Your task to perform on an android device: turn off airplane mode Image 0: 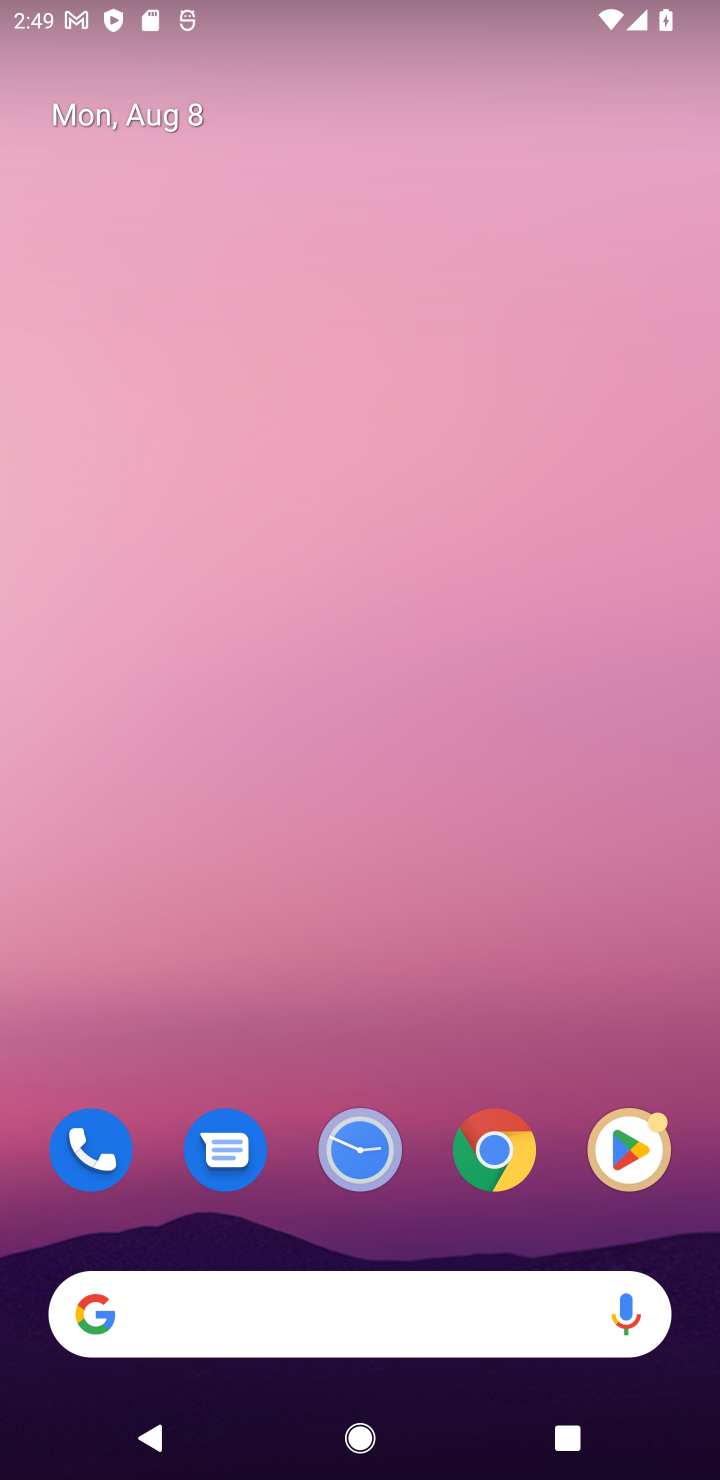
Step 0: drag from (389, 1031) to (291, 427)
Your task to perform on an android device: turn off airplane mode Image 1: 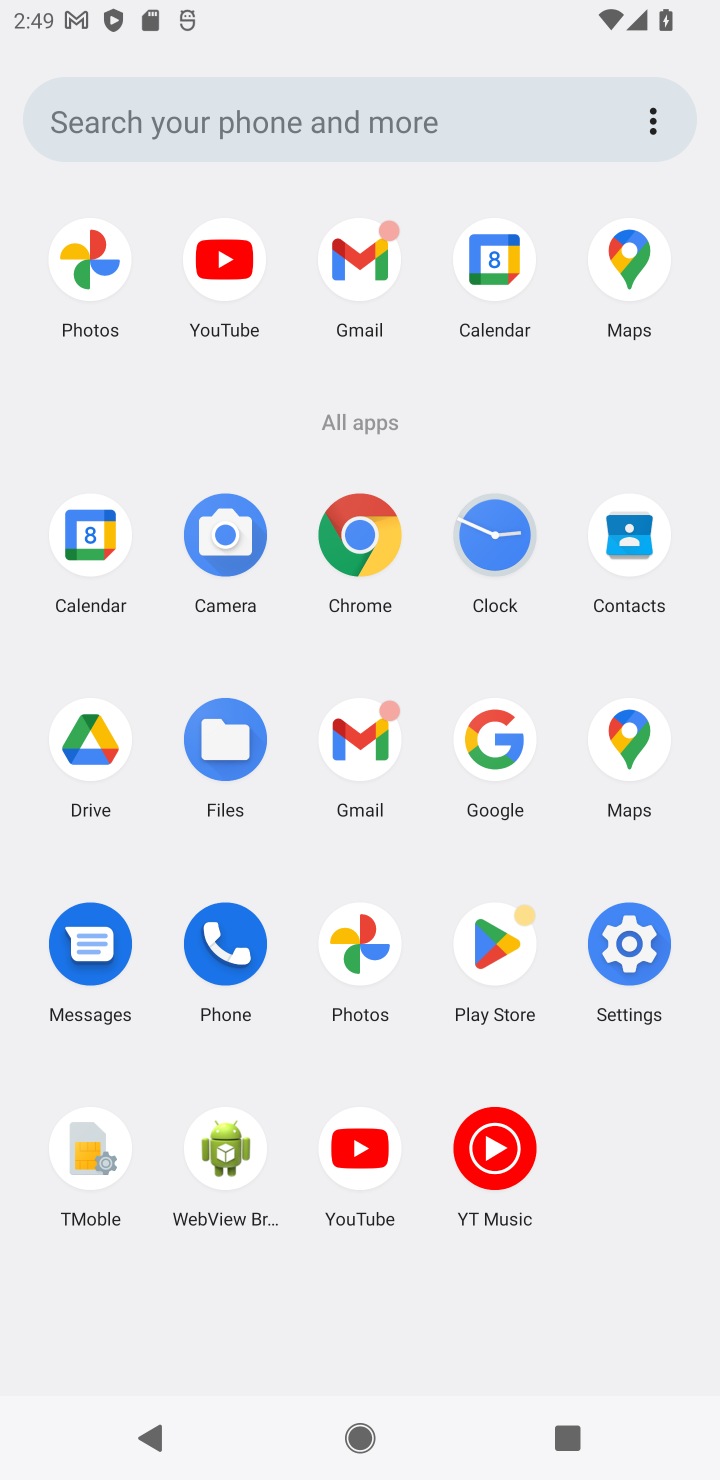
Step 1: click (619, 955)
Your task to perform on an android device: turn off airplane mode Image 2: 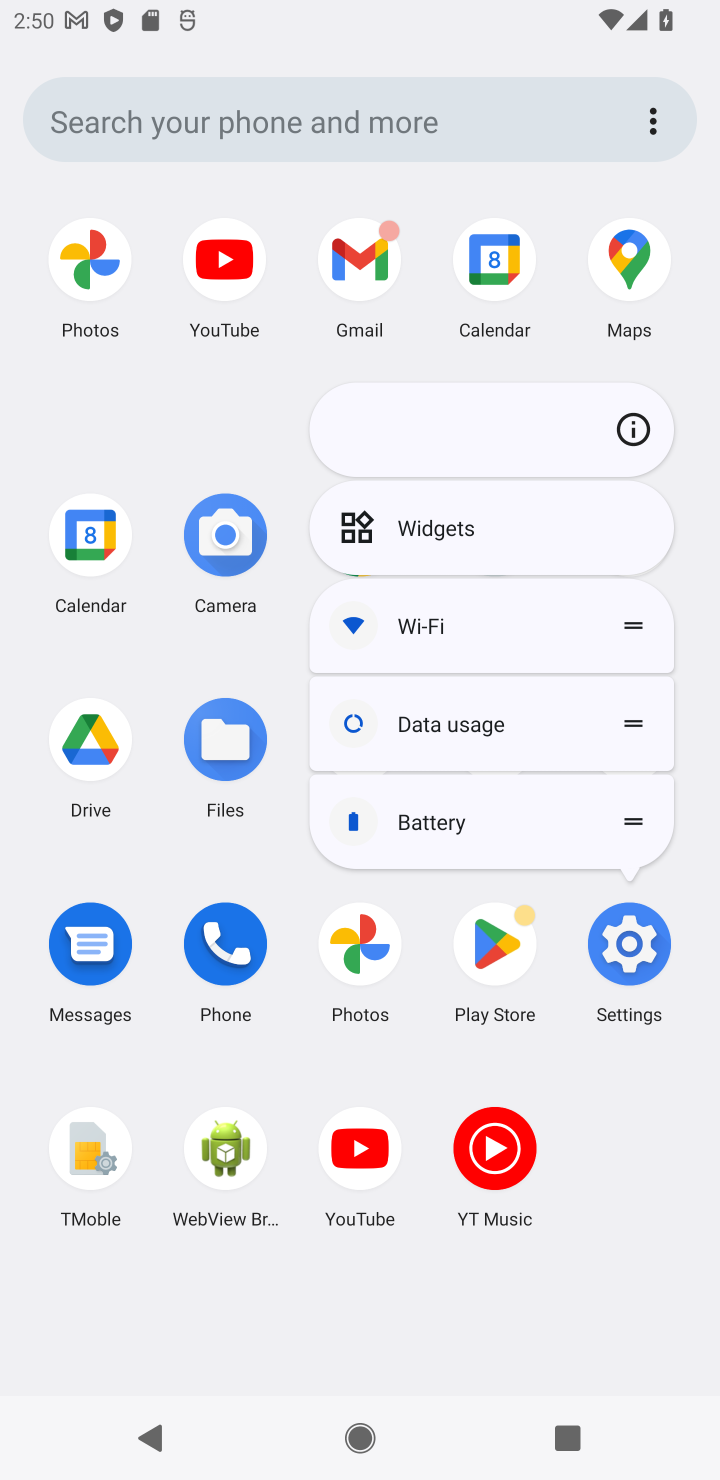
Step 2: click (624, 968)
Your task to perform on an android device: turn off airplane mode Image 3: 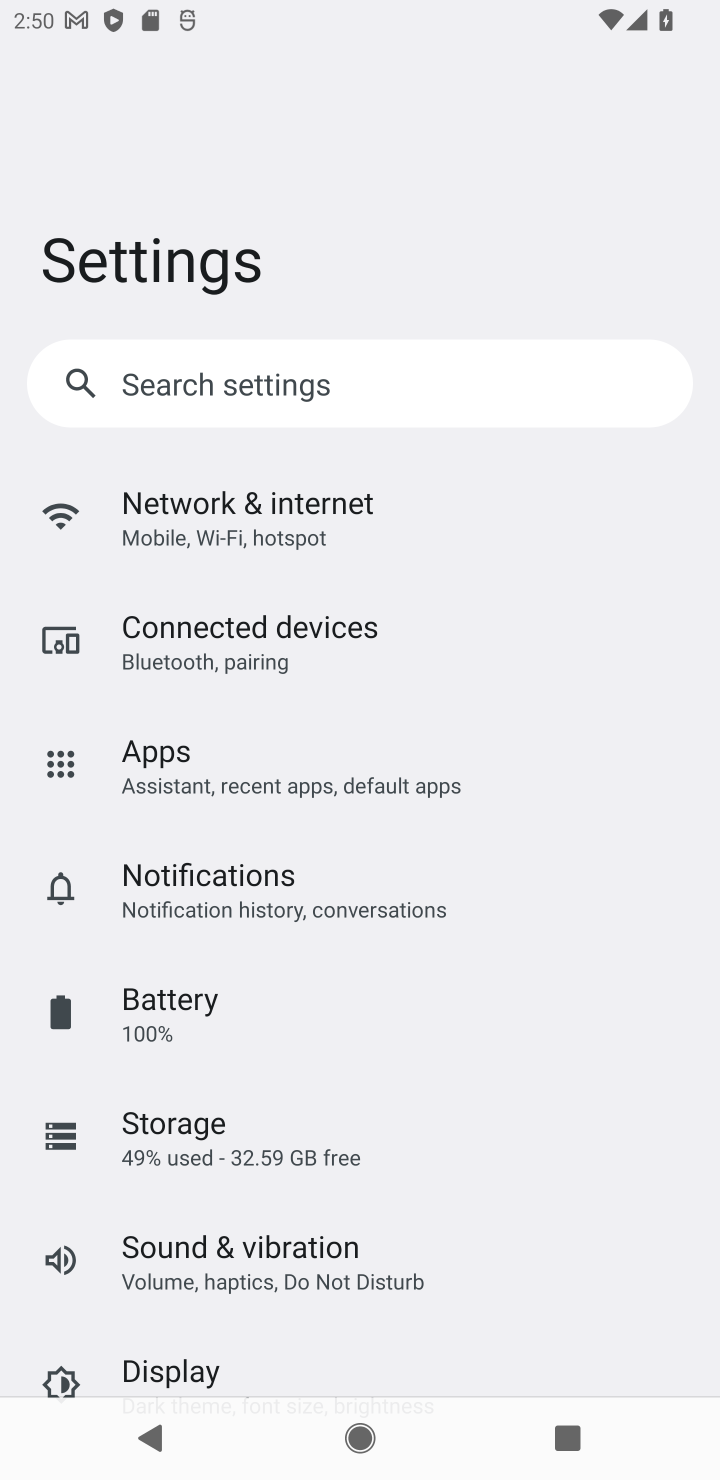
Step 3: click (298, 529)
Your task to perform on an android device: turn off airplane mode Image 4: 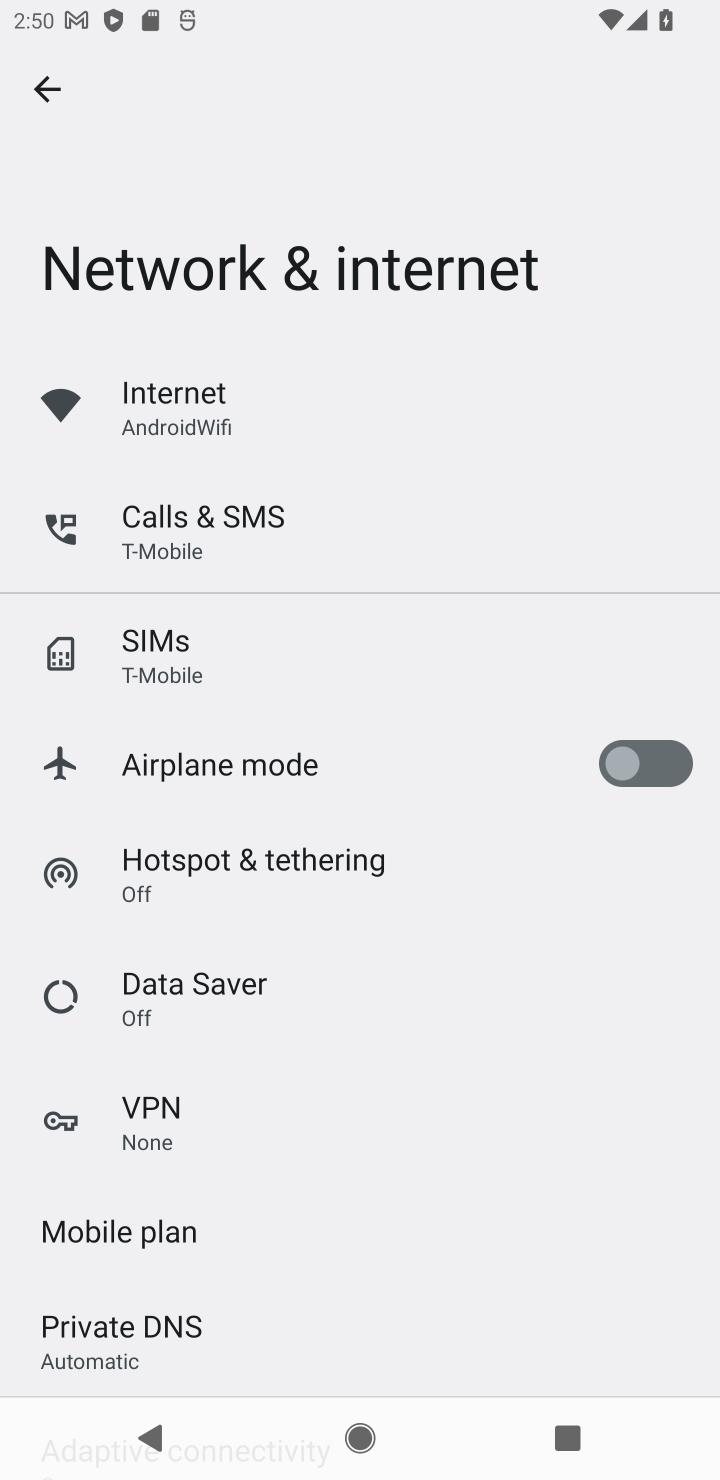
Step 4: task complete